Your task to perform on an android device: check storage Image 0: 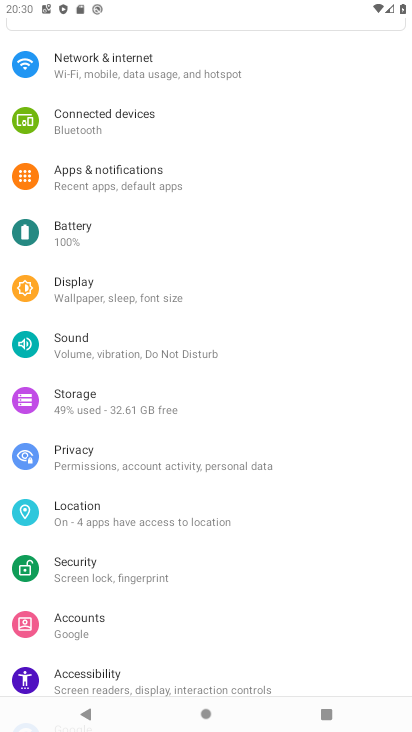
Step 0: click (67, 399)
Your task to perform on an android device: check storage Image 1: 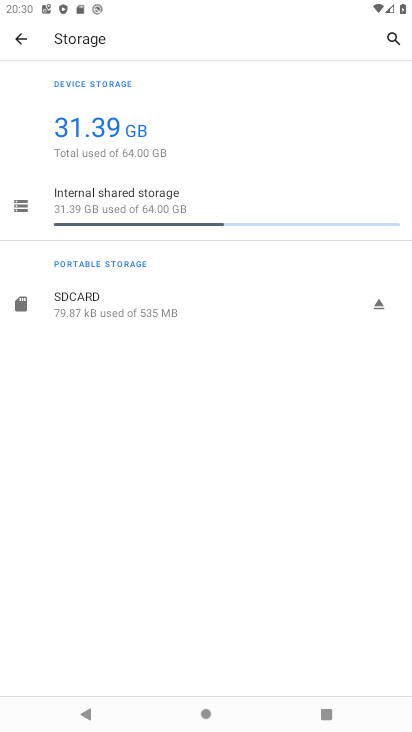
Step 1: task complete